Your task to perform on an android device: check storage Image 0: 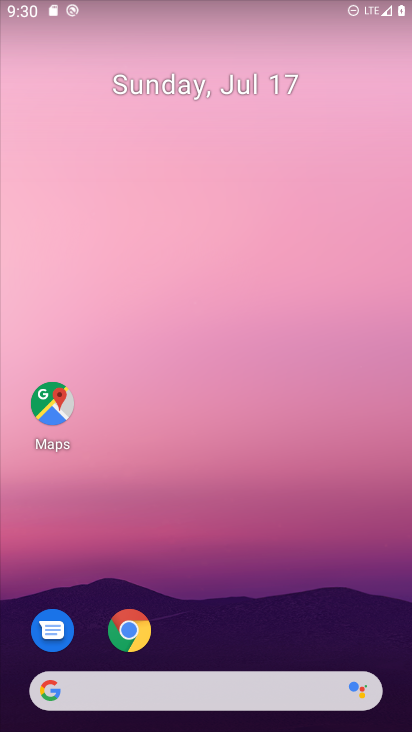
Step 0: drag from (333, 655) to (331, 191)
Your task to perform on an android device: check storage Image 1: 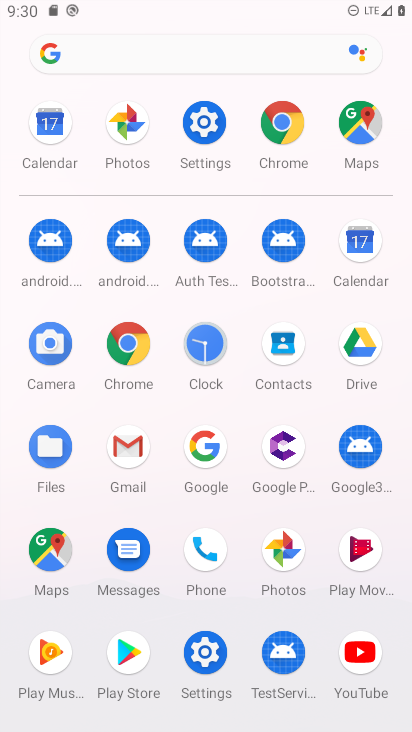
Step 1: click (215, 111)
Your task to perform on an android device: check storage Image 2: 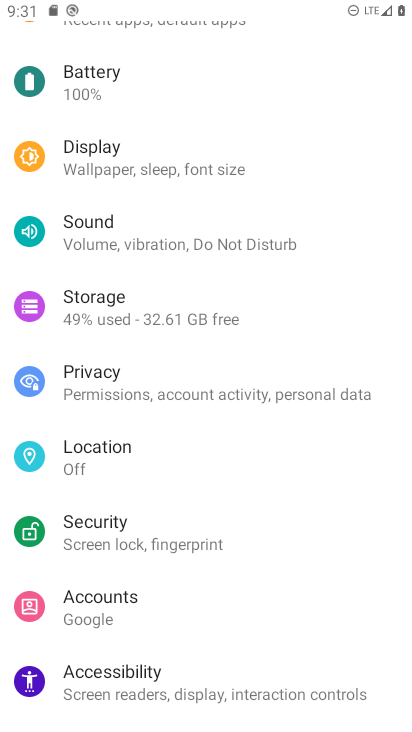
Step 2: click (149, 316)
Your task to perform on an android device: check storage Image 3: 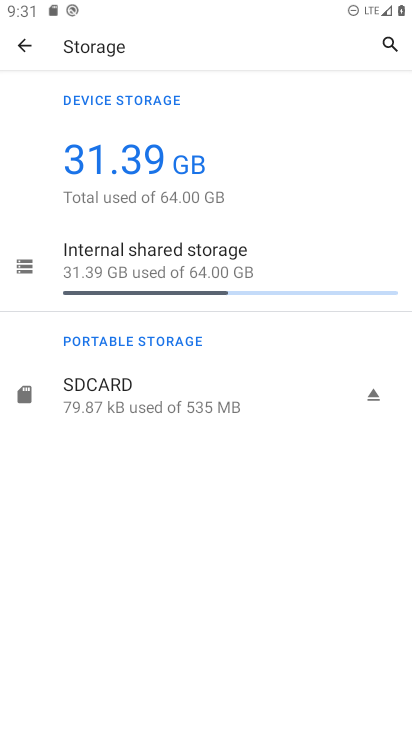
Step 3: task complete